Your task to perform on an android device: Go to accessibility settings Image 0: 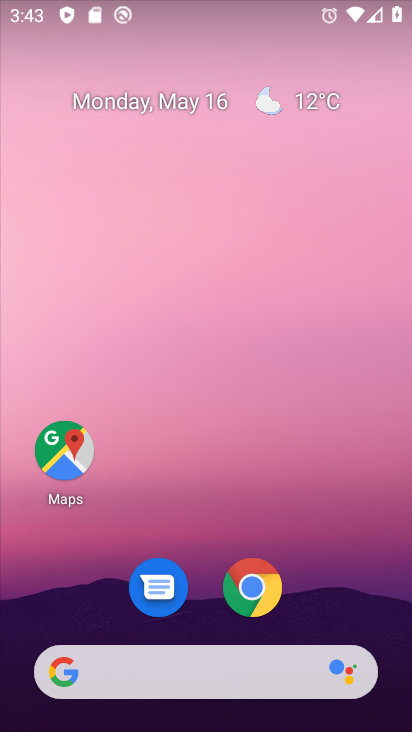
Step 0: drag from (374, 282) to (368, 178)
Your task to perform on an android device: Go to accessibility settings Image 1: 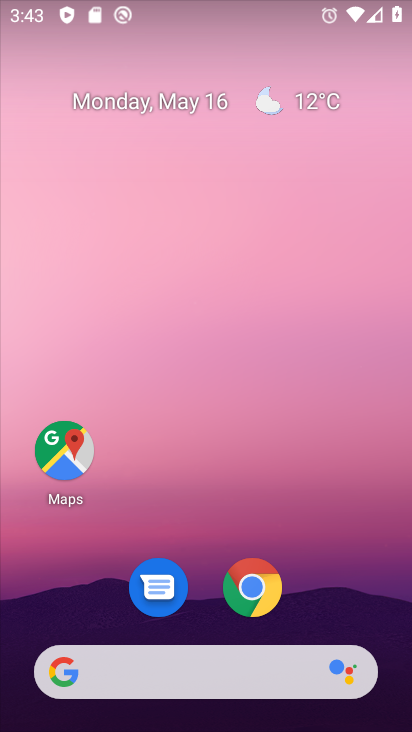
Step 1: drag from (396, 632) to (411, 35)
Your task to perform on an android device: Go to accessibility settings Image 2: 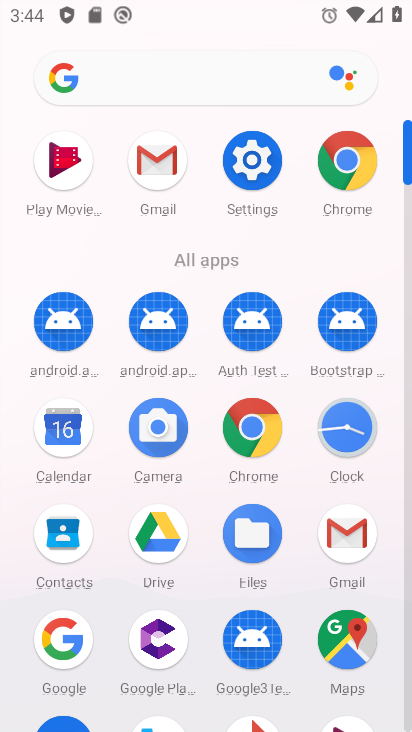
Step 2: click (253, 163)
Your task to perform on an android device: Go to accessibility settings Image 3: 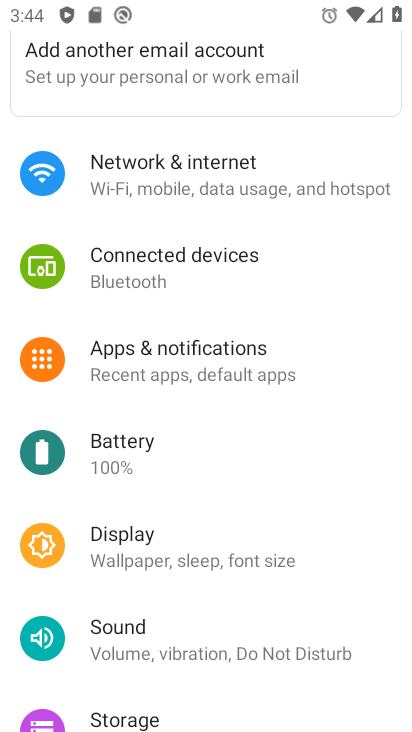
Step 3: drag from (290, 661) to (301, 350)
Your task to perform on an android device: Go to accessibility settings Image 4: 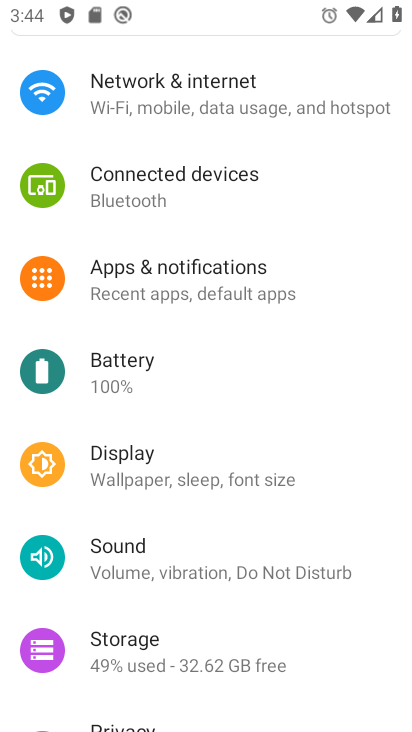
Step 4: drag from (301, 604) to (287, 324)
Your task to perform on an android device: Go to accessibility settings Image 5: 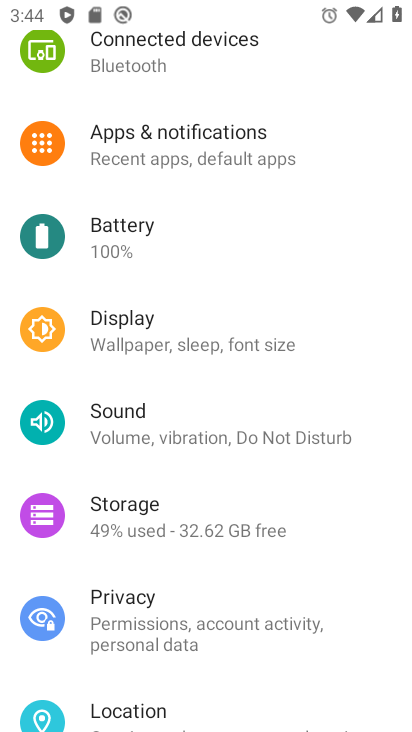
Step 5: drag from (278, 288) to (269, 233)
Your task to perform on an android device: Go to accessibility settings Image 6: 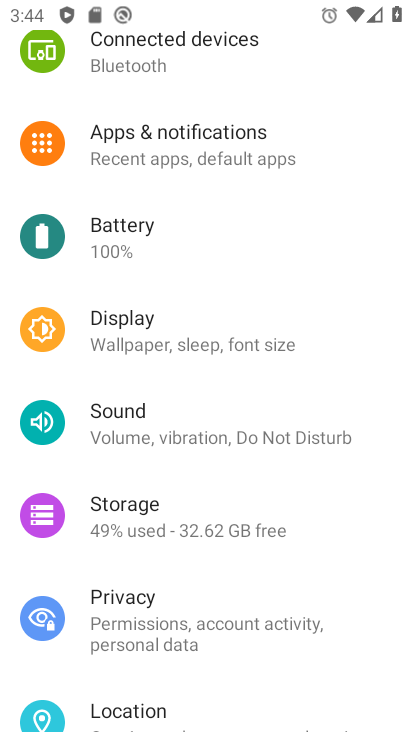
Step 6: drag from (270, 664) to (278, 319)
Your task to perform on an android device: Go to accessibility settings Image 7: 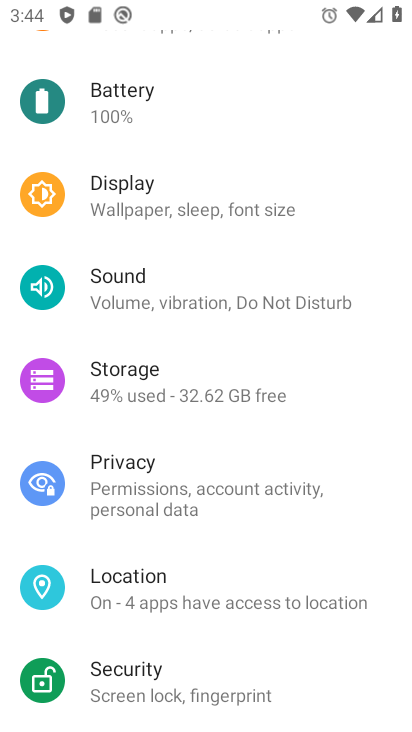
Step 7: drag from (275, 650) to (298, 236)
Your task to perform on an android device: Go to accessibility settings Image 8: 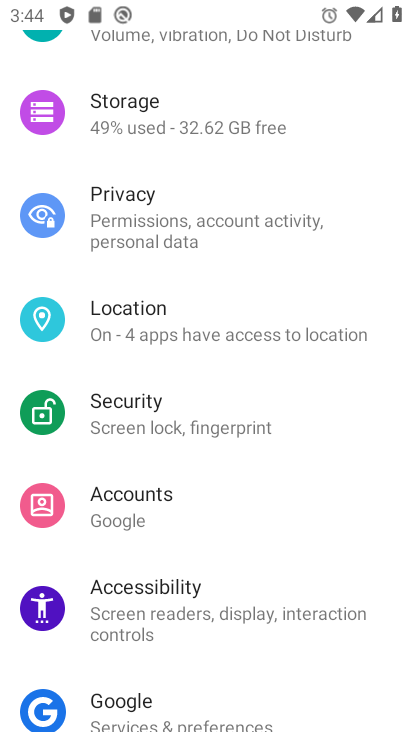
Step 8: click (147, 587)
Your task to perform on an android device: Go to accessibility settings Image 9: 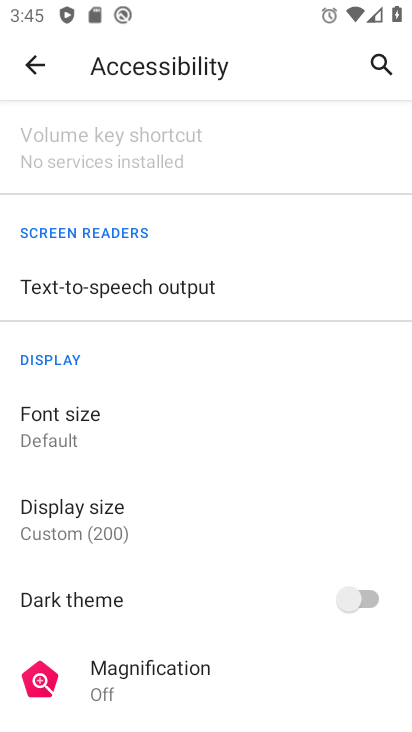
Step 9: task complete